Your task to perform on an android device: change notifications settings Image 0: 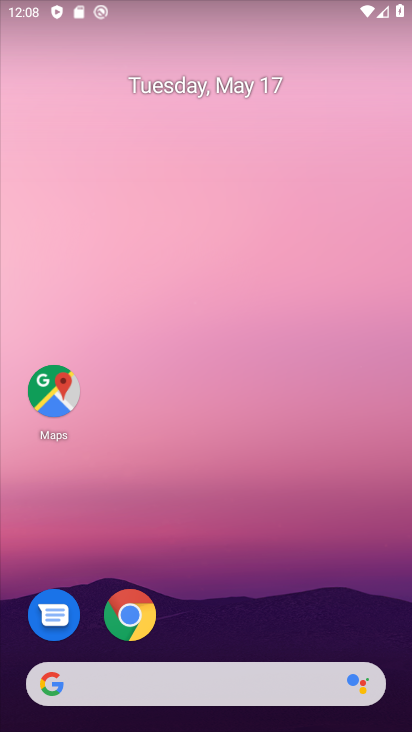
Step 0: drag from (238, 624) to (254, 365)
Your task to perform on an android device: change notifications settings Image 1: 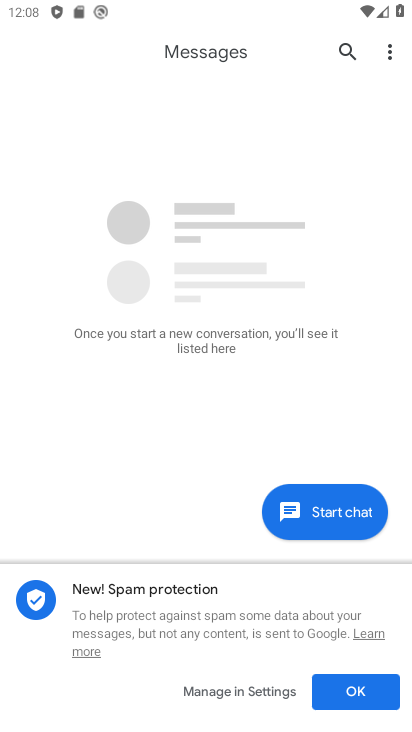
Step 1: press home button
Your task to perform on an android device: change notifications settings Image 2: 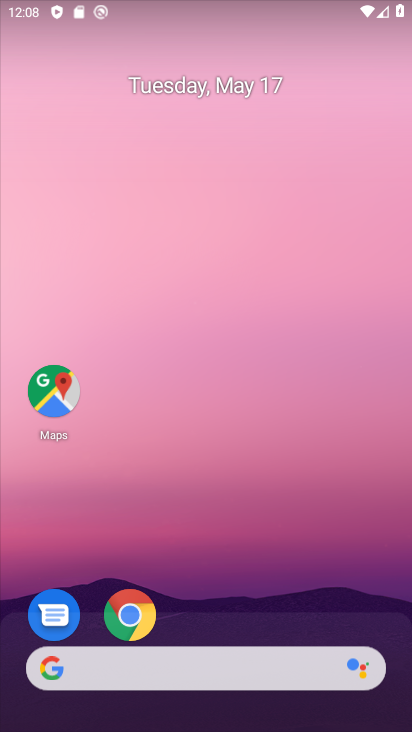
Step 2: drag from (177, 614) to (169, 339)
Your task to perform on an android device: change notifications settings Image 3: 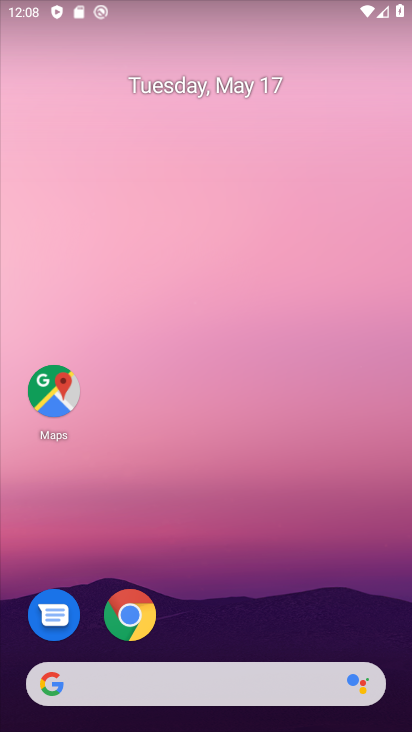
Step 3: drag from (222, 637) to (266, 166)
Your task to perform on an android device: change notifications settings Image 4: 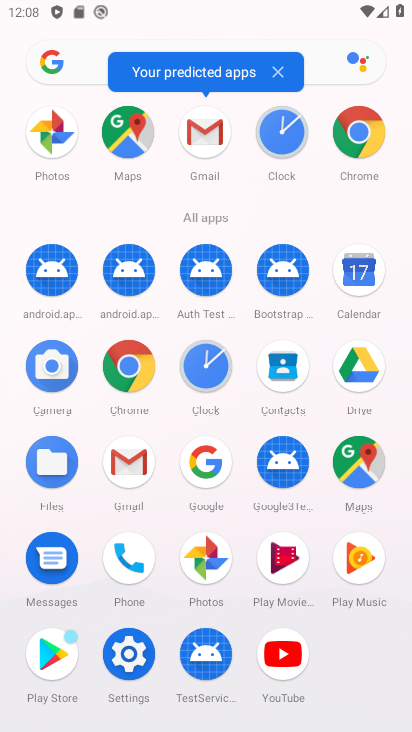
Step 4: click (121, 670)
Your task to perform on an android device: change notifications settings Image 5: 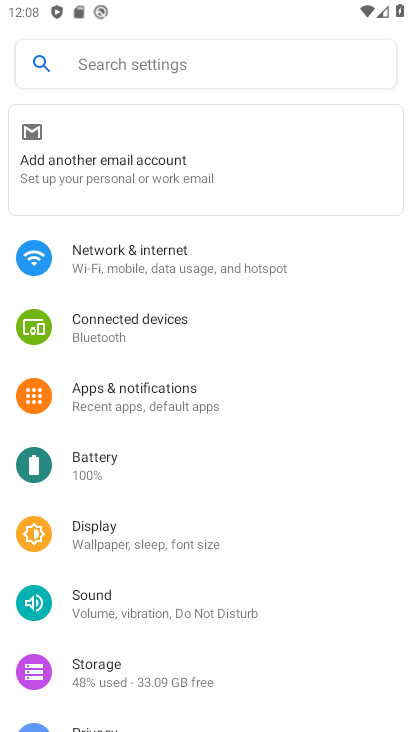
Step 5: click (150, 275)
Your task to perform on an android device: change notifications settings Image 6: 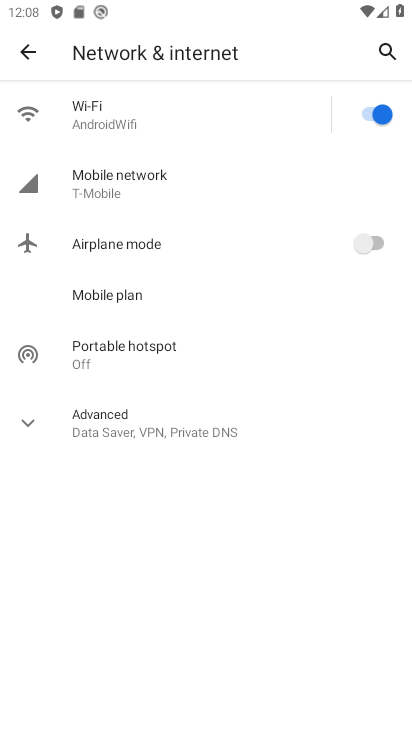
Step 6: click (84, 420)
Your task to perform on an android device: change notifications settings Image 7: 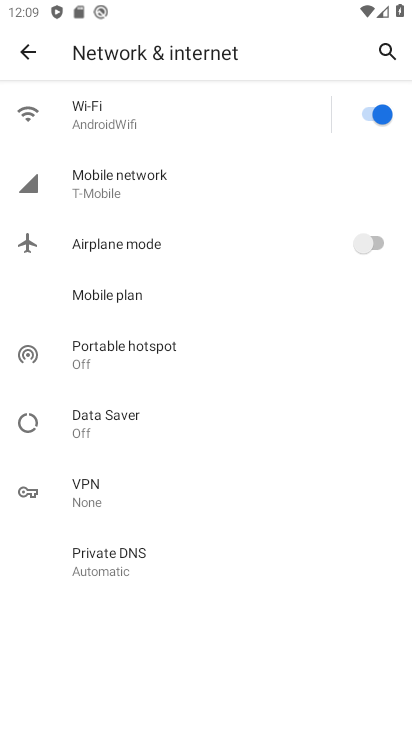
Step 7: click (22, 54)
Your task to perform on an android device: change notifications settings Image 8: 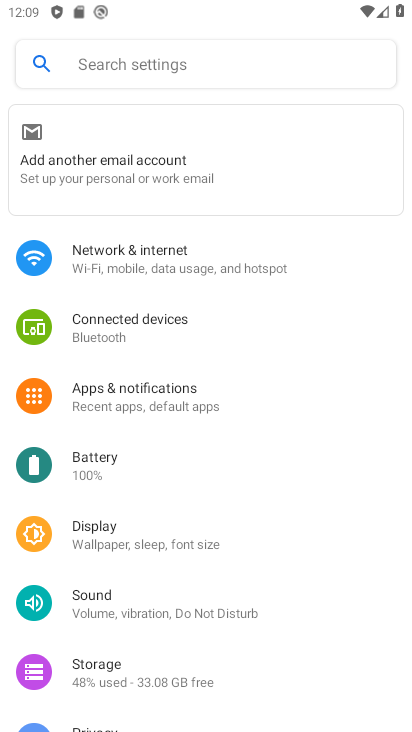
Step 8: click (97, 389)
Your task to perform on an android device: change notifications settings Image 9: 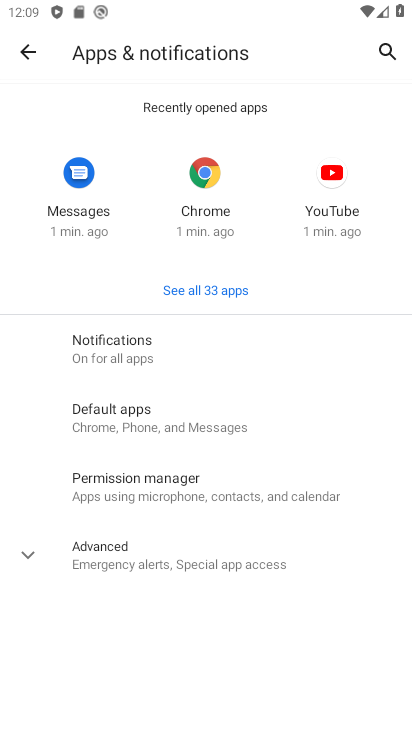
Step 9: click (116, 552)
Your task to perform on an android device: change notifications settings Image 10: 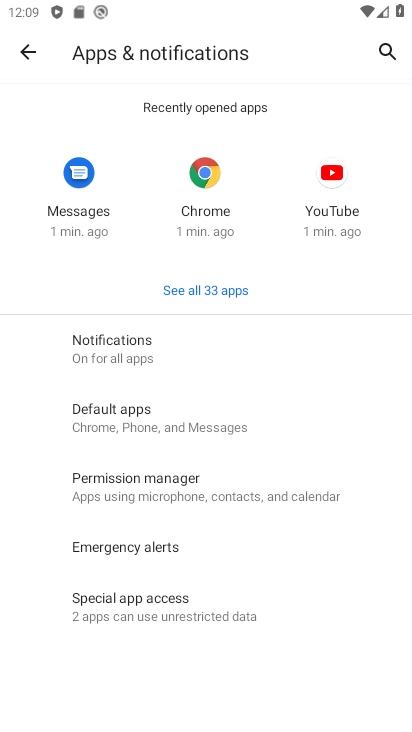
Step 10: click (116, 353)
Your task to perform on an android device: change notifications settings Image 11: 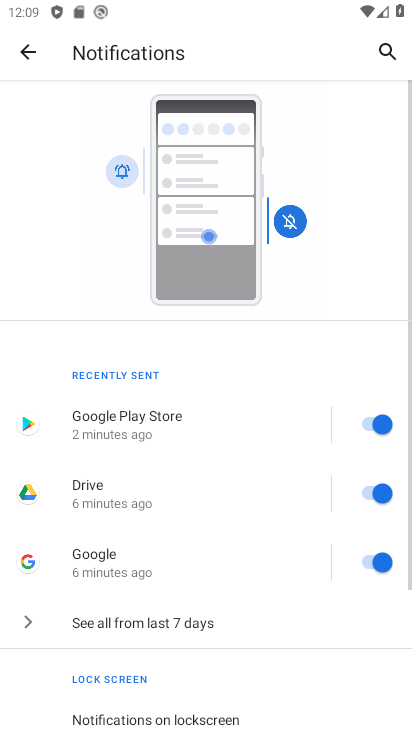
Step 11: click (367, 423)
Your task to perform on an android device: change notifications settings Image 12: 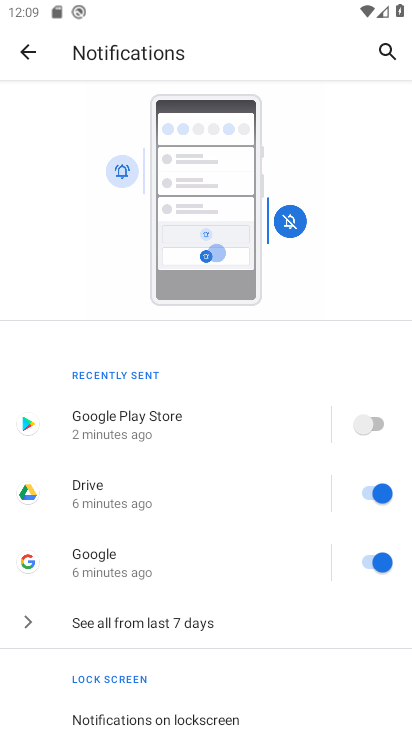
Step 12: click (365, 493)
Your task to perform on an android device: change notifications settings Image 13: 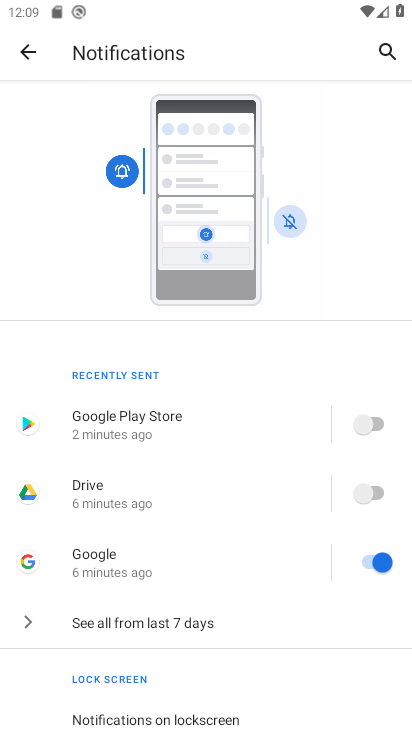
Step 13: click (369, 560)
Your task to perform on an android device: change notifications settings Image 14: 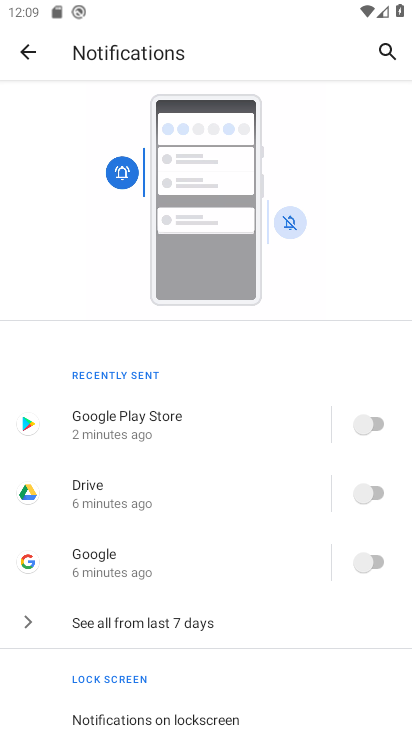
Step 14: click (96, 620)
Your task to perform on an android device: change notifications settings Image 15: 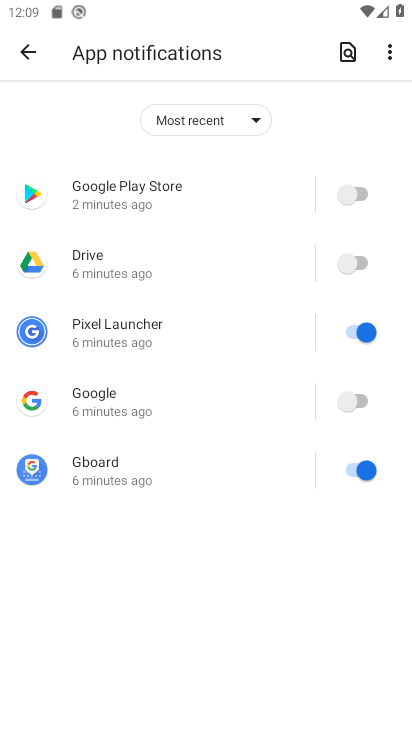
Step 15: click (355, 325)
Your task to perform on an android device: change notifications settings Image 16: 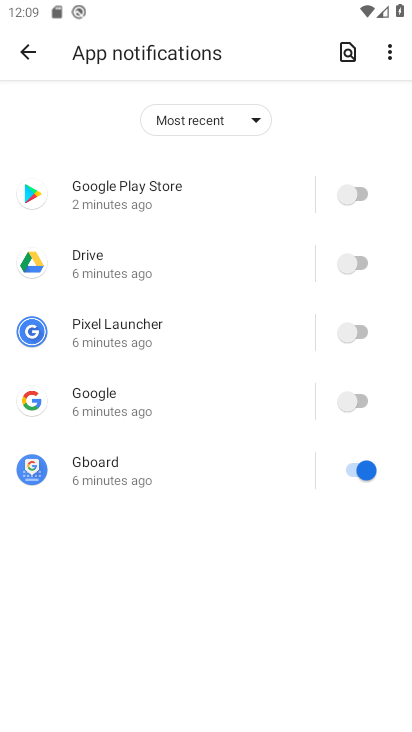
Step 16: click (353, 465)
Your task to perform on an android device: change notifications settings Image 17: 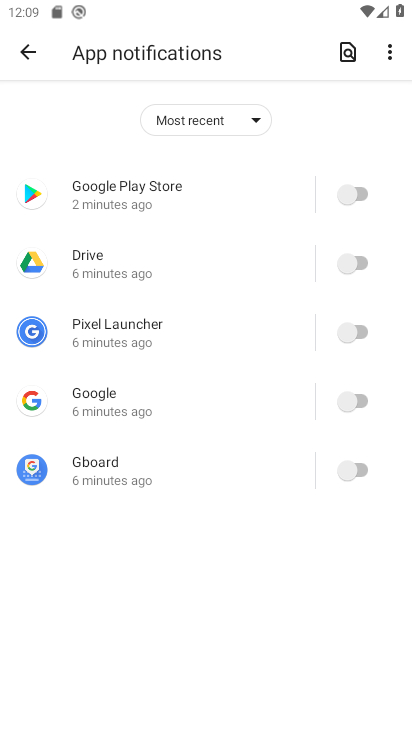
Step 17: task complete